Your task to perform on an android device: change timer sound Image 0: 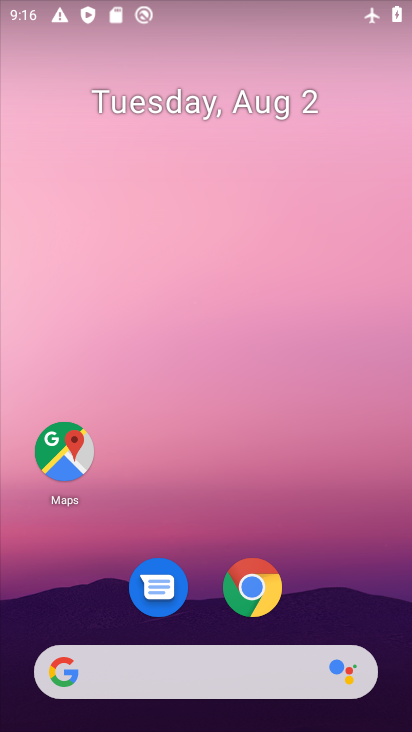
Step 0: click (376, 601)
Your task to perform on an android device: change timer sound Image 1: 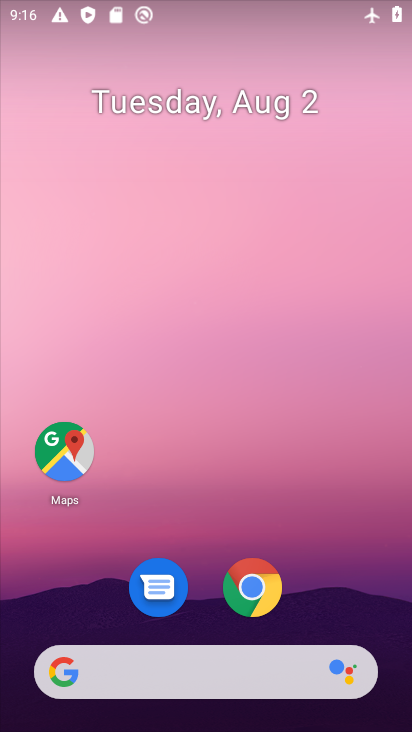
Step 1: drag from (376, 601) to (296, 100)
Your task to perform on an android device: change timer sound Image 2: 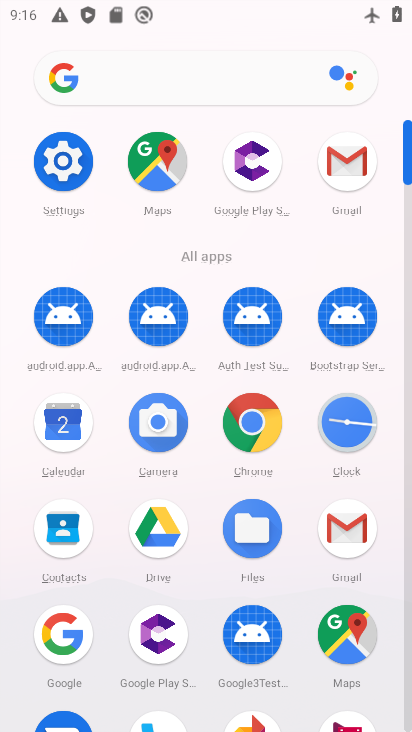
Step 2: click (360, 433)
Your task to perform on an android device: change timer sound Image 3: 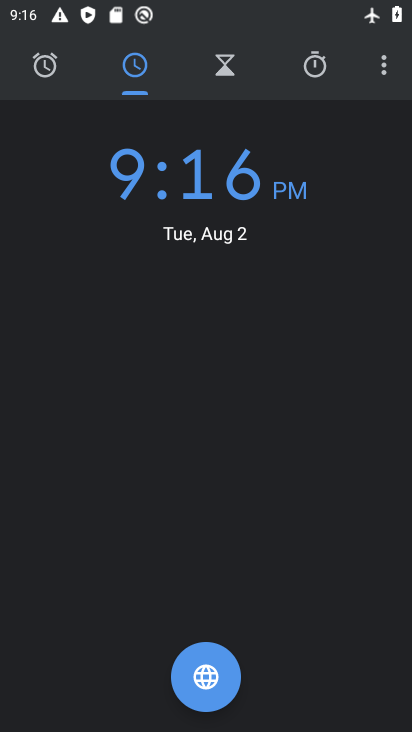
Step 3: click (394, 62)
Your task to perform on an android device: change timer sound Image 4: 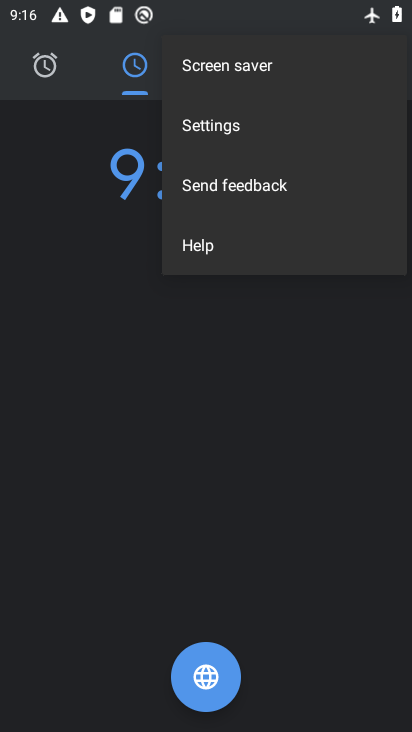
Step 4: click (293, 125)
Your task to perform on an android device: change timer sound Image 5: 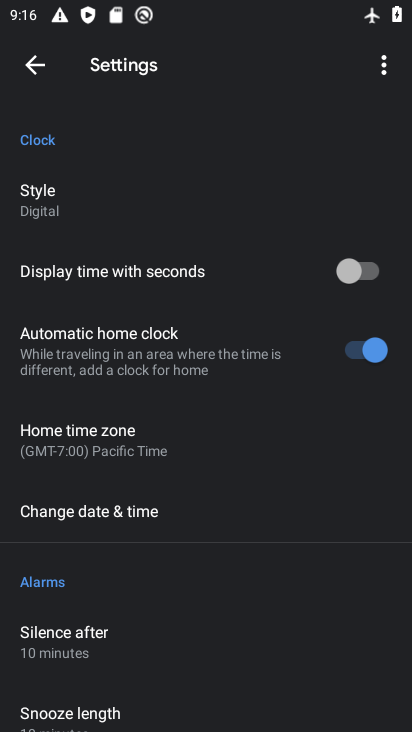
Step 5: drag from (262, 628) to (244, 150)
Your task to perform on an android device: change timer sound Image 6: 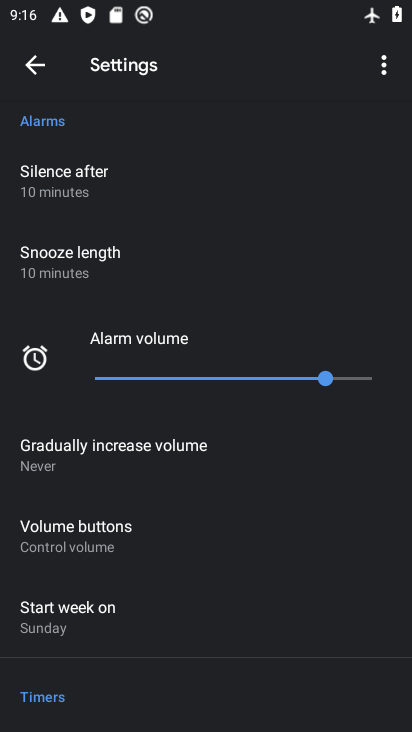
Step 6: drag from (202, 549) to (201, 97)
Your task to perform on an android device: change timer sound Image 7: 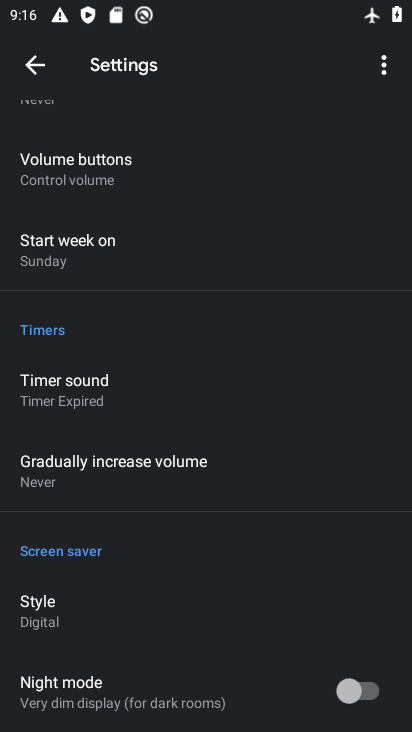
Step 7: click (159, 412)
Your task to perform on an android device: change timer sound Image 8: 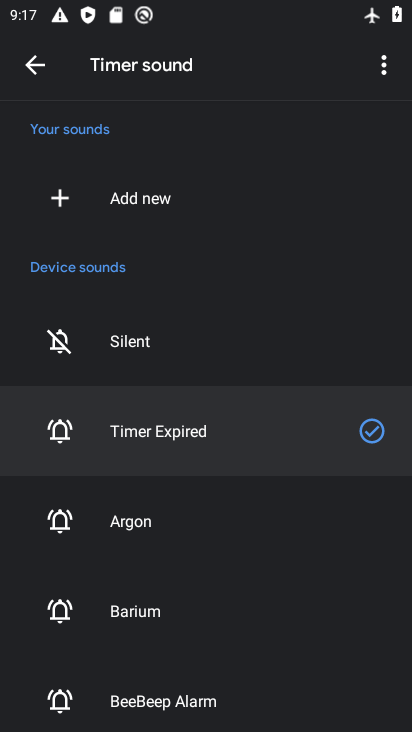
Step 8: click (209, 531)
Your task to perform on an android device: change timer sound Image 9: 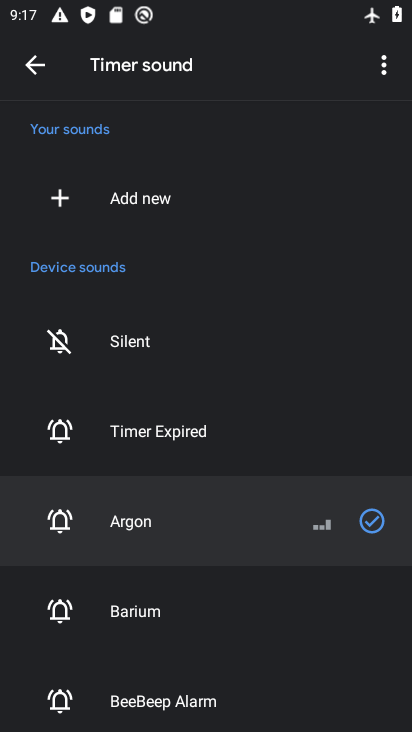
Step 9: task complete